Your task to perform on an android device: Open my contact list Image 0: 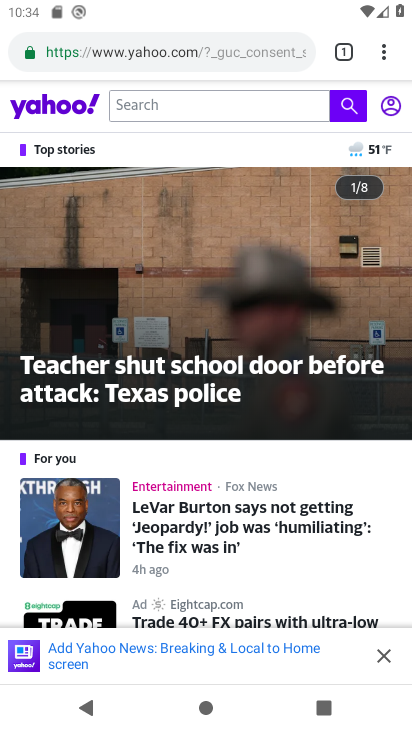
Step 0: click (165, 651)
Your task to perform on an android device: Open my contact list Image 1: 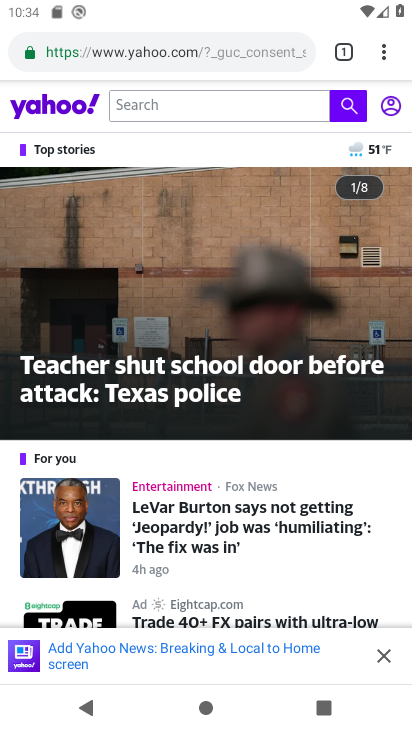
Step 1: press home button
Your task to perform on an android device: Open my contact list Image 2: 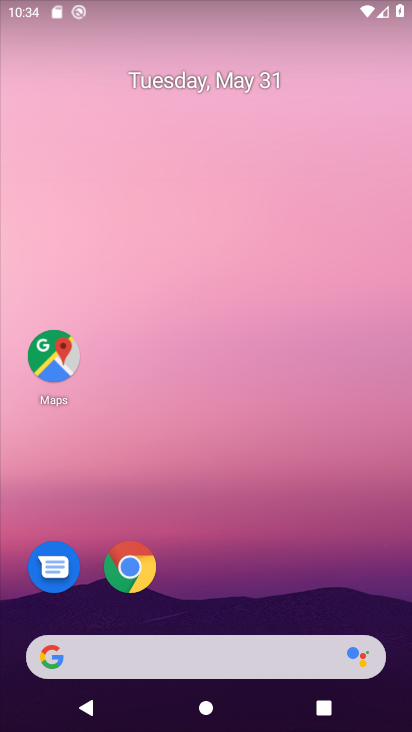
Step 2: drag from (217, 608) to (245, 45)
Your task to perform on an android device: Open my contact list Image 3: 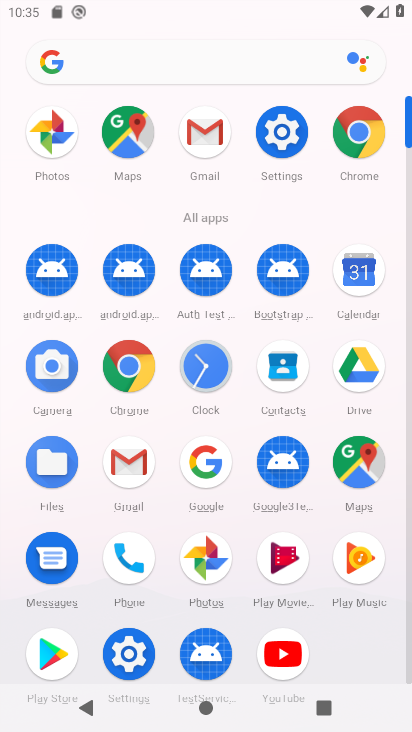
Step 3: click (273, 368)
Your task to perform on an android device: Open my contact list Image 4: 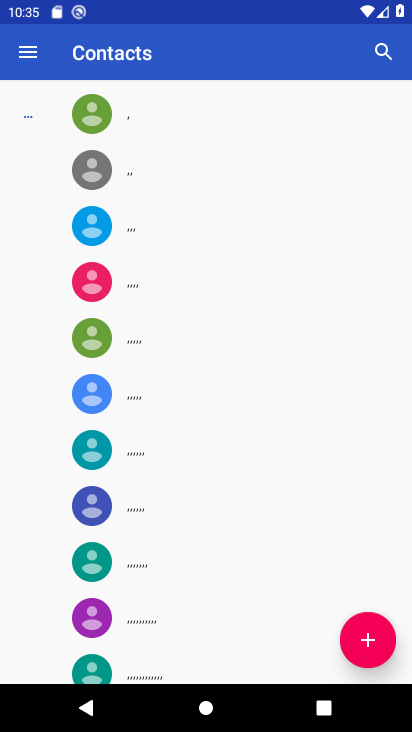
Step 4: click (379, 628)
Your task to perform on an android device: Open my contact list Image 5: 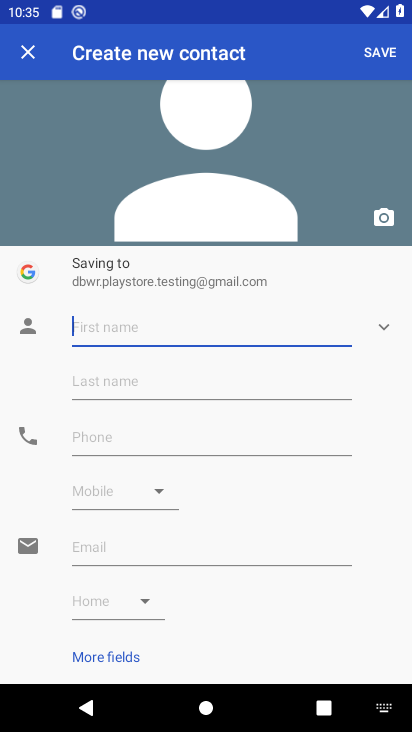
Step 5: task complete